Your task to perform on an android device: uninstall "Booking.com: Hotels and more" Image 0: 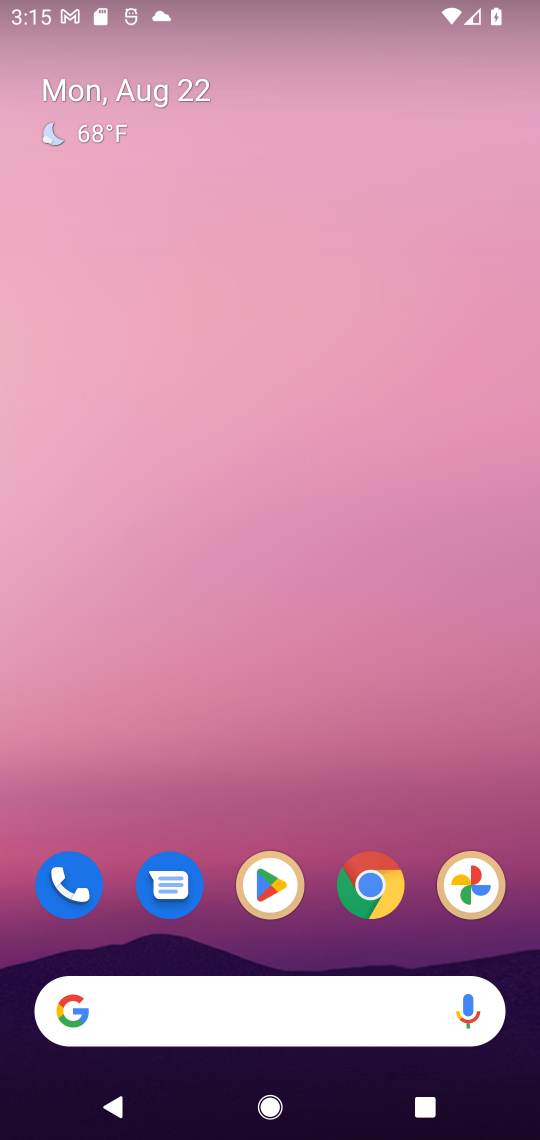
Step 0: press home button
Your task to perform on an android device: uninstall "Booking.com: Hotels and more" Image 1: 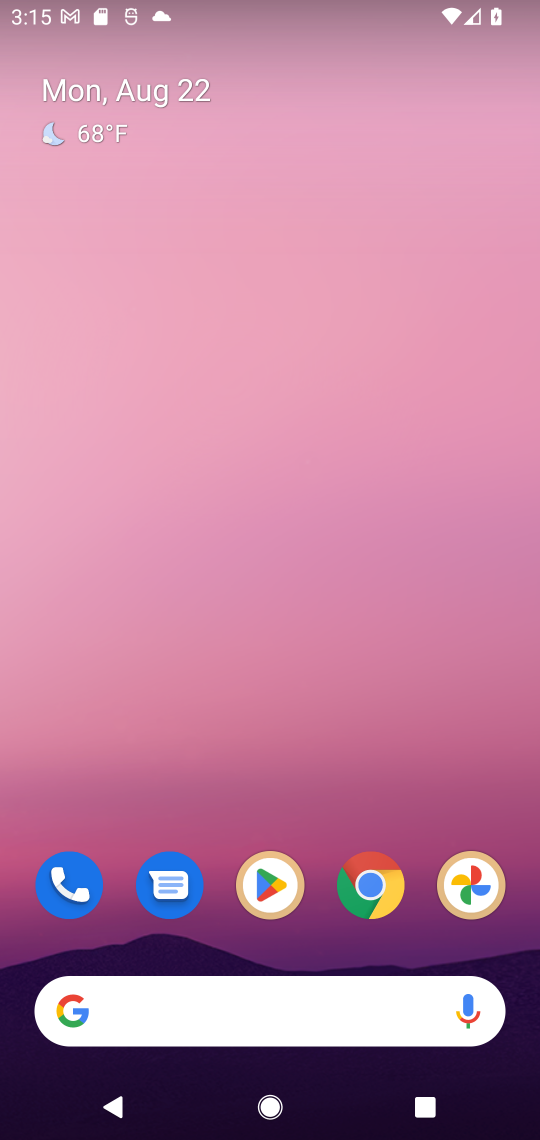
Step 1: click (259, 879)
Your task to perform on an android device: uninstall "Booking.com: Hotels and more" Image 2: 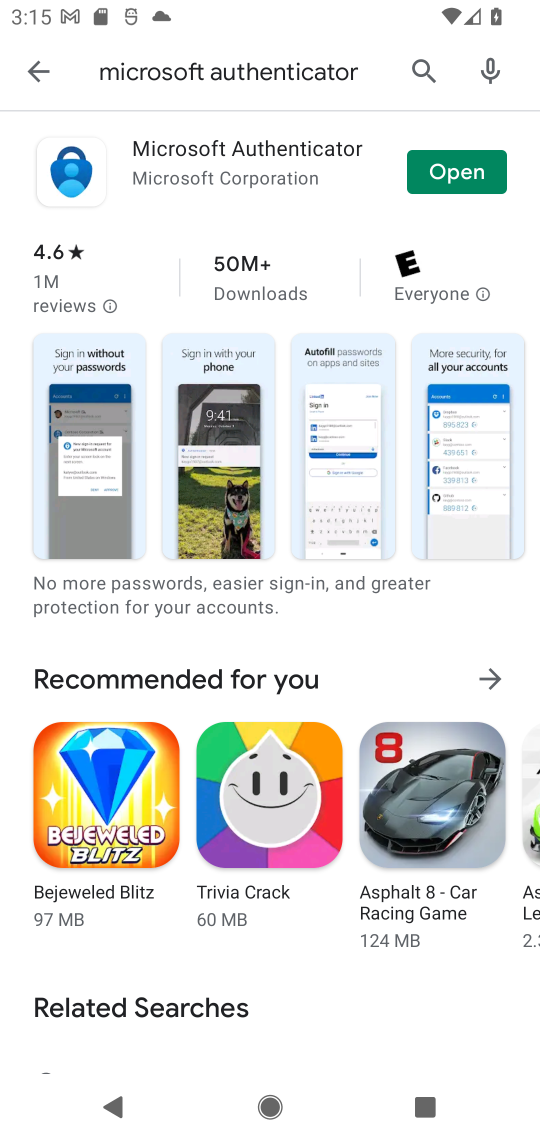
Step 2: click (427, 64)
Your task to perform on an android device: uninstall "Booking.com: Hotels and more" Image 3: 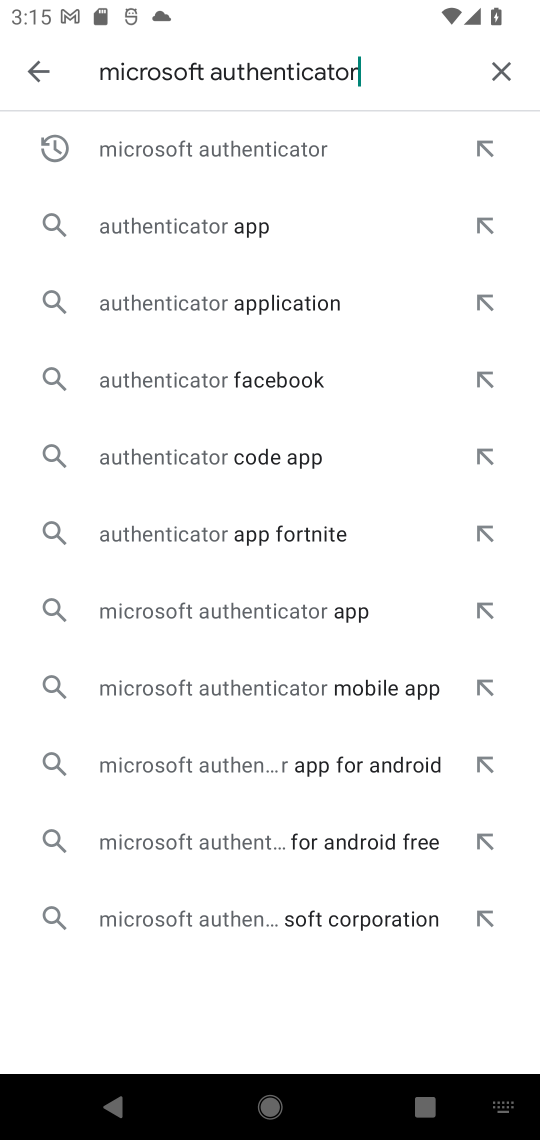
Step 3: click (516, 69)
Your task to perform on an android device: uninstall "Booking.com: Hotels and more" Image 4: 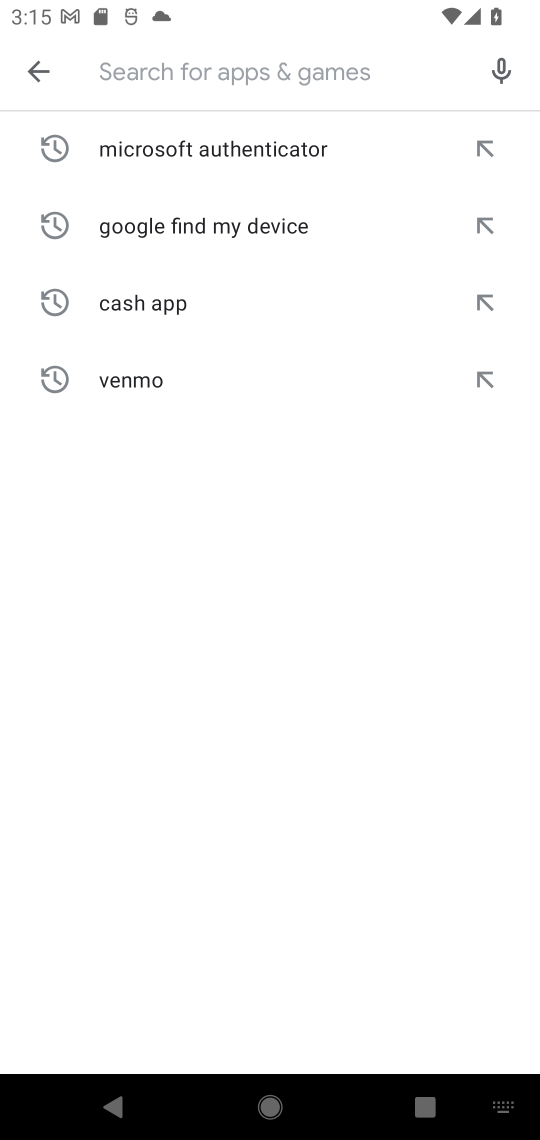
Step 4: type "Booking.com: Hotels and more"
Your task to perform on an android device: uninstall "Booking.com: Hotels and more" Image 5: 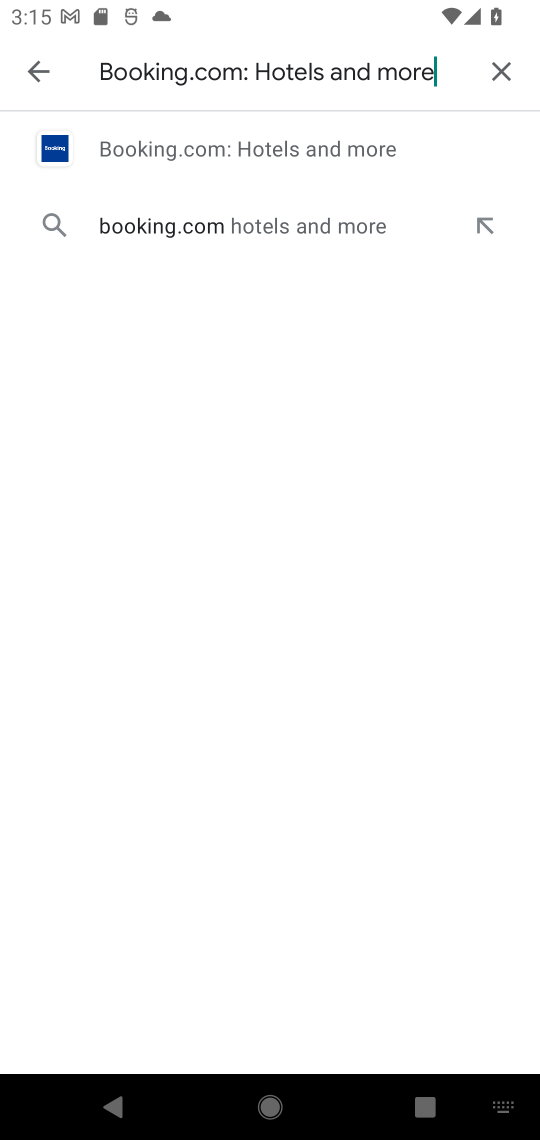
Step 5: click (234, 153)
Your task to perform on an android device: uninstall "Booking.com: Hotels and more" Image 6: 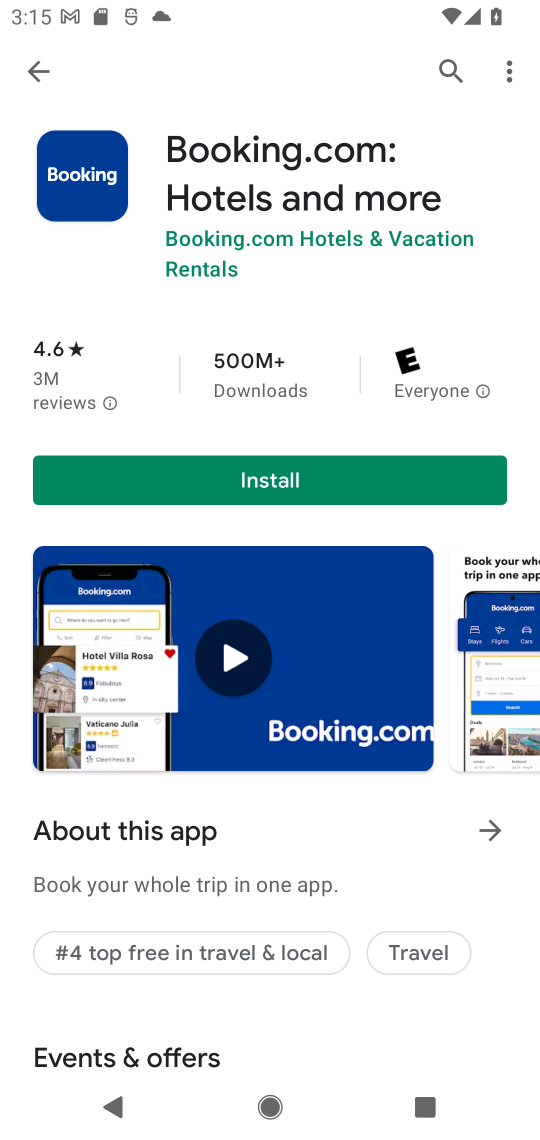
Step 6: task complete